Your task to perform on an android device: change timer sound Image 0: 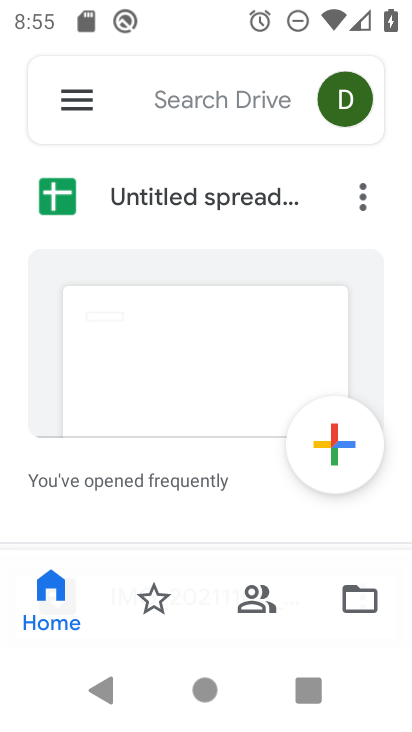
Step 0: press home button
Your task to perform on an android device: change timer sound Image 1: 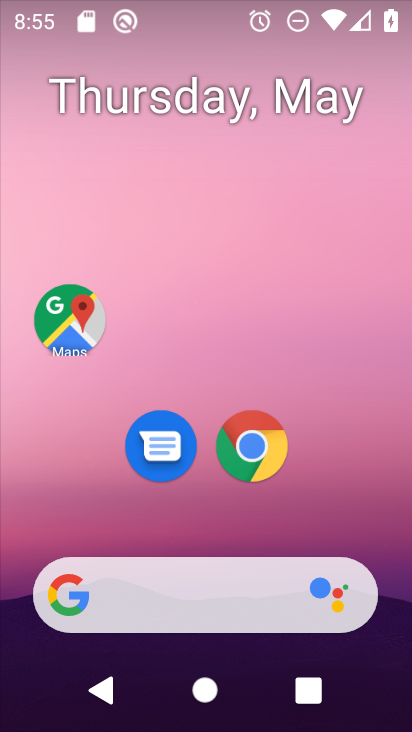
Step 1: drag from (389, 514) to (377, 141)
Your task to perform on an android device: change timer sound Image 2: 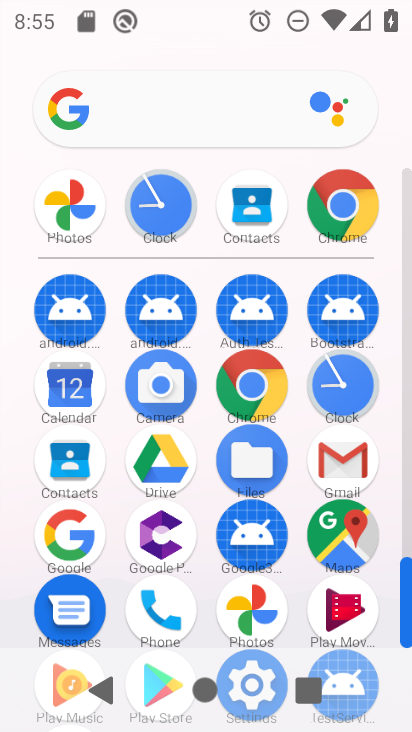
Step 2: drag from (302, 587) to (285, 372)
Your task to perform on an android device: change timer sound Image 3: 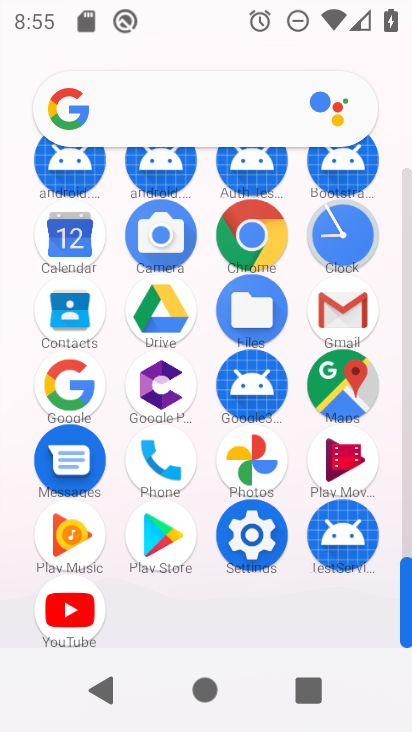
Step 3: click (340, 250)
Your task to perform on an android device: change timer sound Image 4: 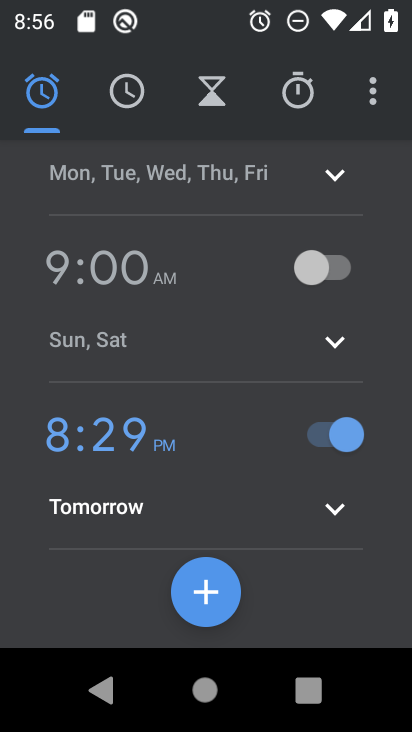
Step 4: drag from (386, 101) to (193, 206)
Your task to perform on an android device: change timer sound Image 5: 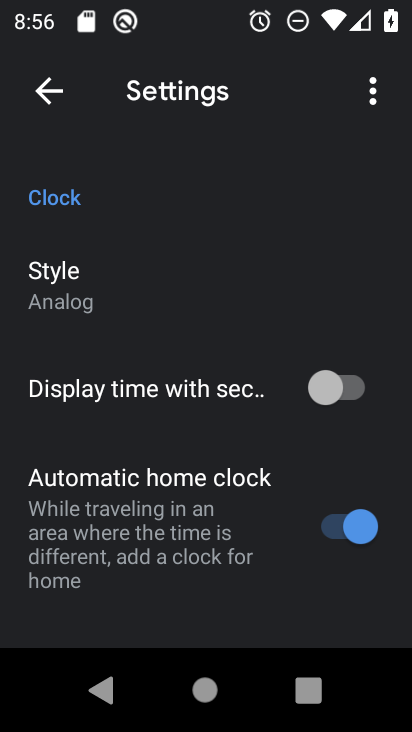
Step 5: drag from (220, 564) to (223, 293)
Your task to perform on an android device: change timer sound Image 6: 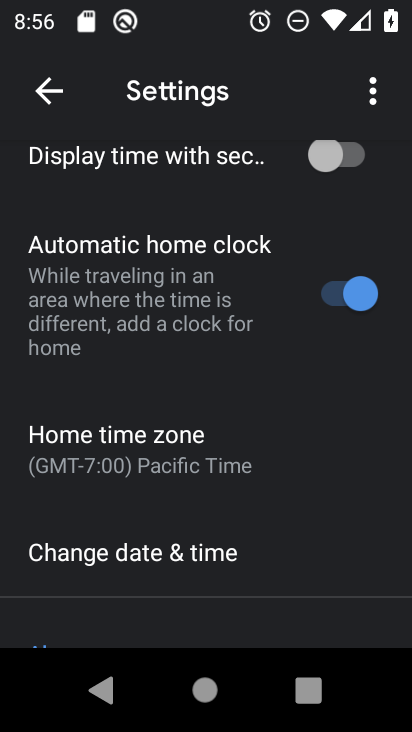
Step 6: drag from (200, 567) to (212, 183)
Your task to perform on an android device: change timer sound Image 7: 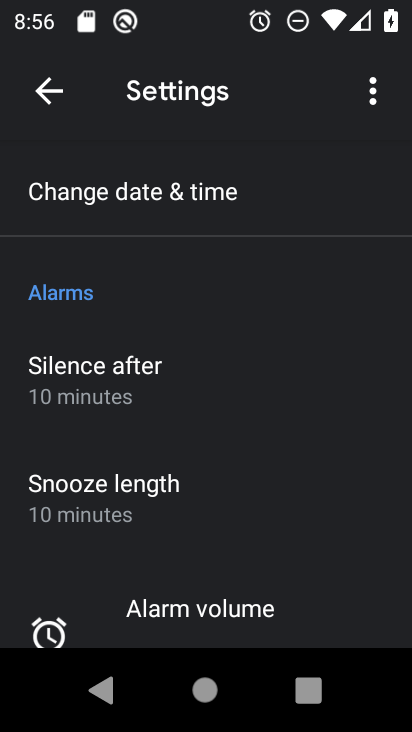
Step 7: drag from (208, 535) to (215, 184)
Your task to perform on an android device: change timer sound Image 8: 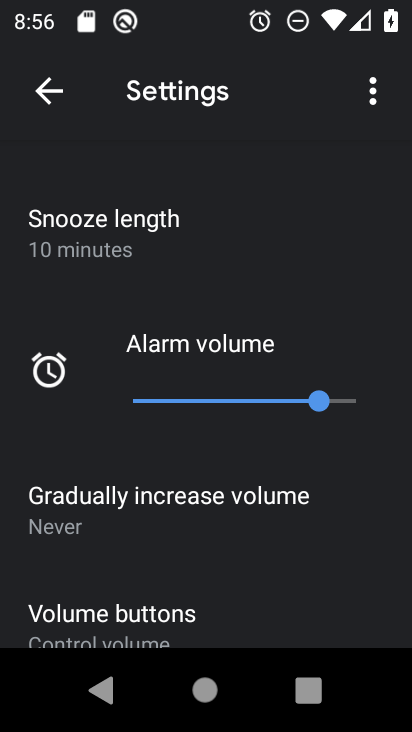
Step 8: drag from (225, 573) to (253, 240)
Your task to perform on an android device: change timer sound Image 9: 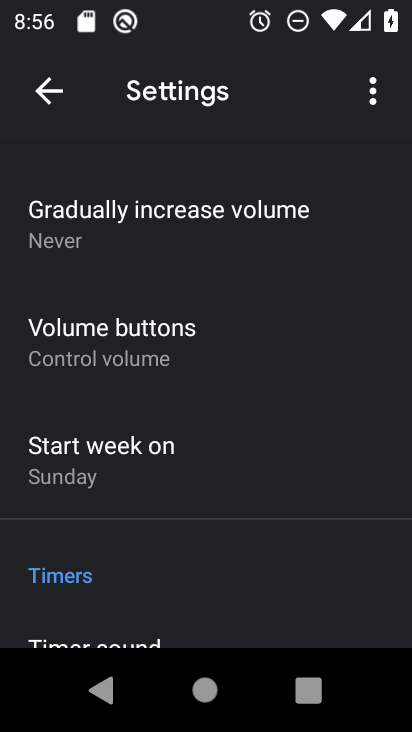
Step 9: drag from (246, 584) to (298, 182)
Your task to perform on an android device: change timer sound Image 10: 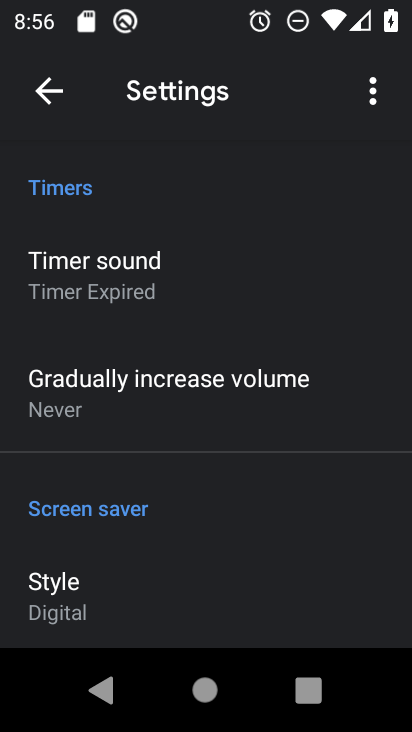
Step 10: click (204, 267)
Your task to perform on an android device: change timer sound Image 11: 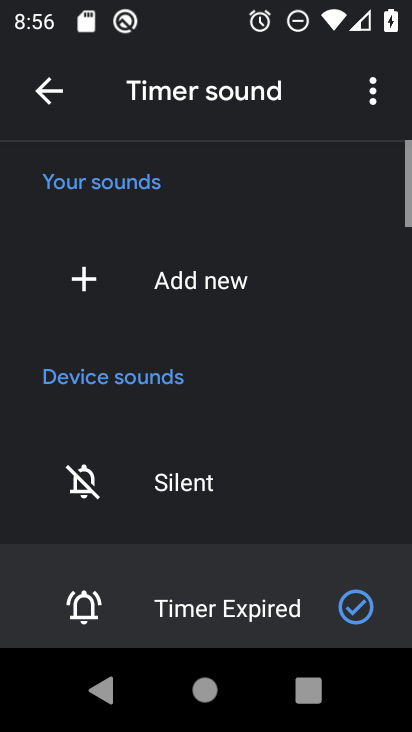
Step 11: drag from (304, 500) to (309, 235)
Your task to perform on an android device: change timer sound Image 12: 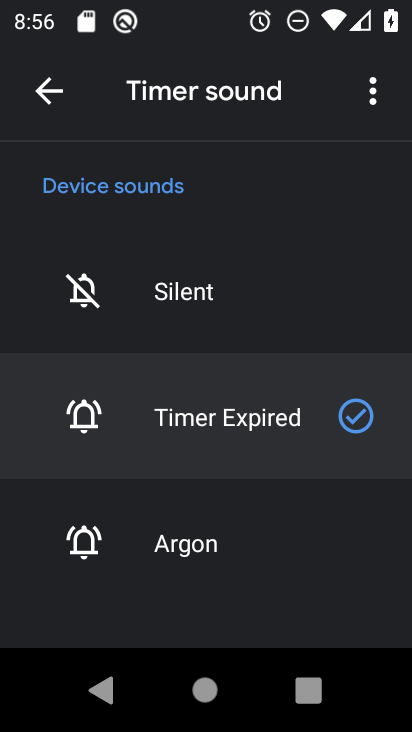
Step 12: click (205, 544)
Your task to perform on an android device: change timer sound Image 13: 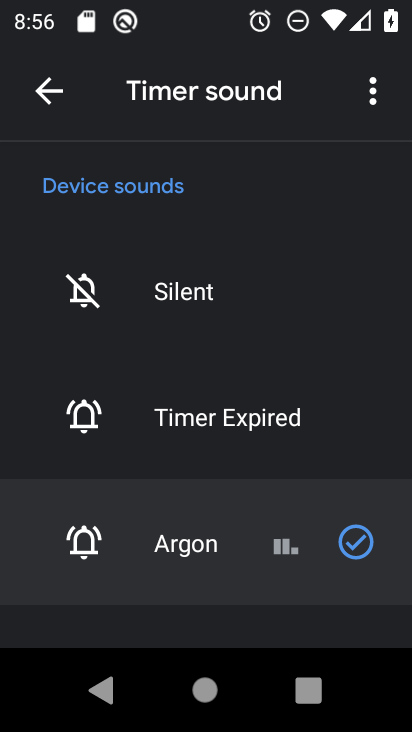
Step 13: task complete